Your task to perform on an android device: turn off improve location accuracy Image 0: 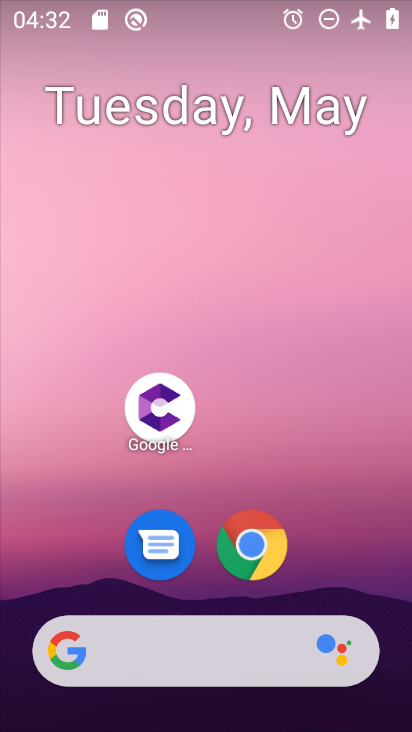
Step 0: drag from (376, 575) to (359, 227)
Your task to perform on an android device: turn off improve location accuracy Image 1: 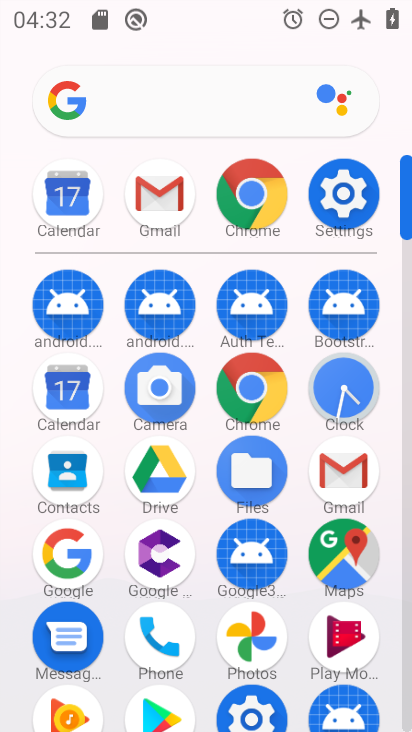
Step 1: click (345, 217)
Your task to perform on an android device: turn off improve location accuracy Image 2: 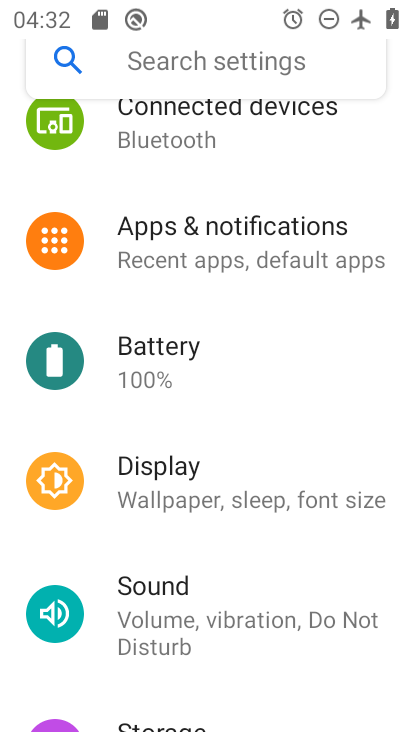
Step 2: drag from (377, 568) to (367, 417)
Your task to perform on an android device: turn off improve location accuracy Image 3: 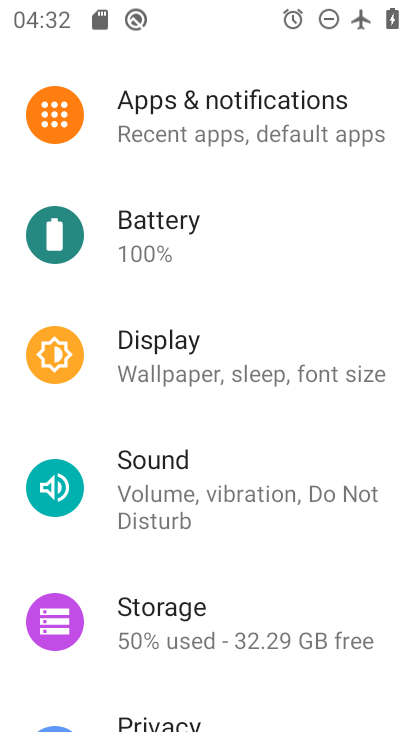
Step 3: drag from (354, 595) to (372, 430)
Your task to perform on an android device: turn off improve location accuracy Image 4: 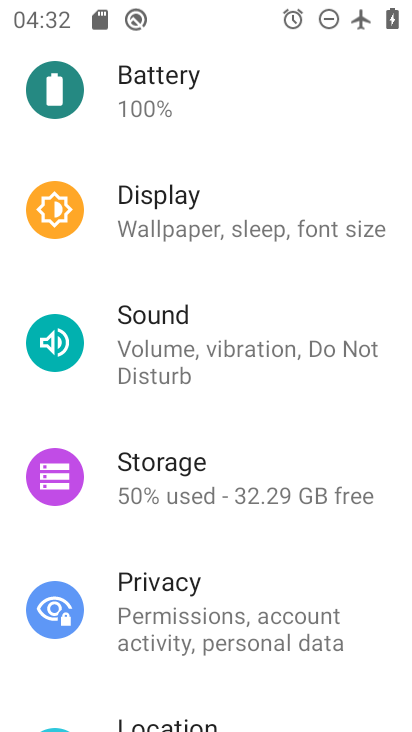
Step 4: drag from (376, 572) to (380, 442)
Your task to perform on an android device: turn off improve location accuracy Image 5: 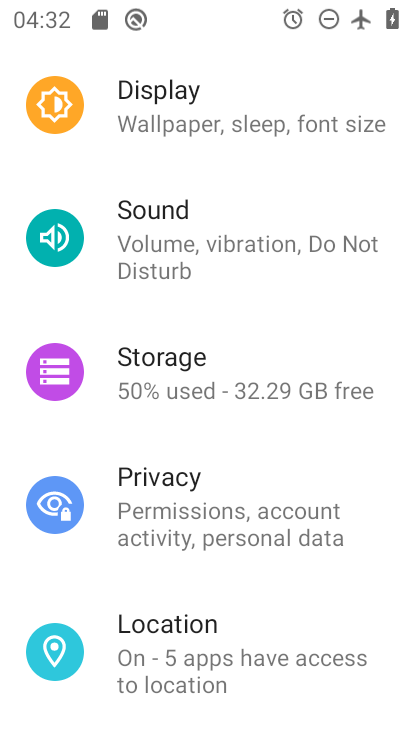
Step 5: drag from (350, 654) to (354, 532)
Your task to perform on an android device: turn off improve location accuracy Image 6: 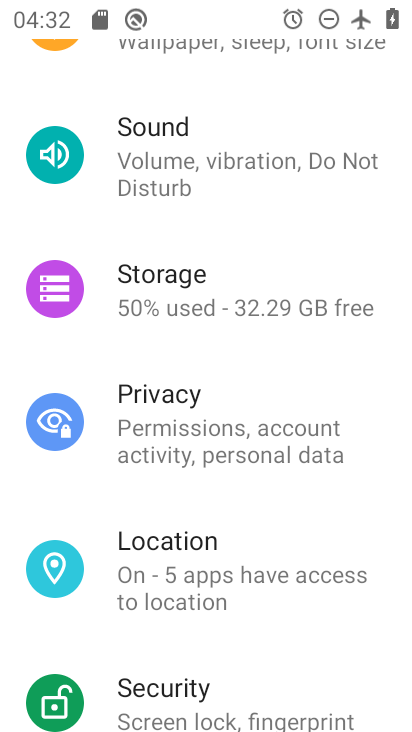
Step 6: click (319, 589)
Your task to perform on an android device: turn off improve location accuracy Image 7: 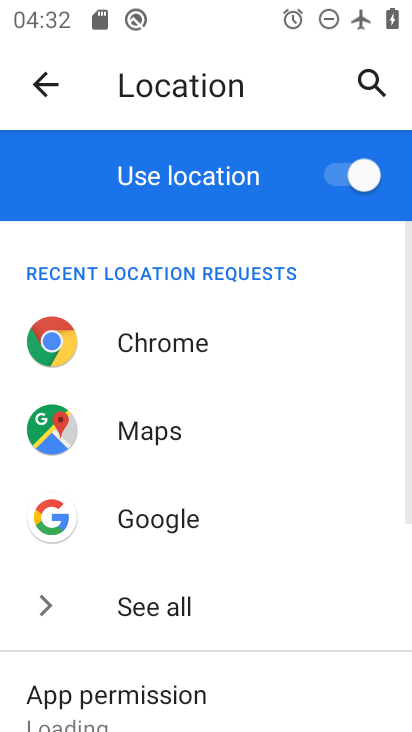
Step 7: drag from (327, 629) to (341, 486)
Your task to perform on an android device: turn off improve location accuracy Image 8: 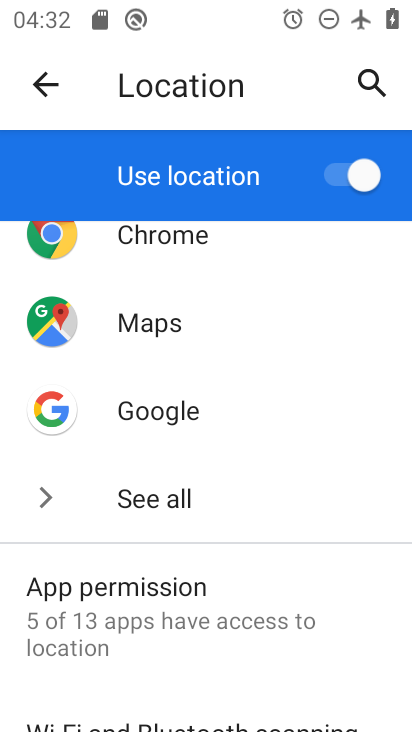
Step 8: drag from (335, 633) to (343, 577)
Your task to perform on an android device: turn off improve location accuracy Image 9: 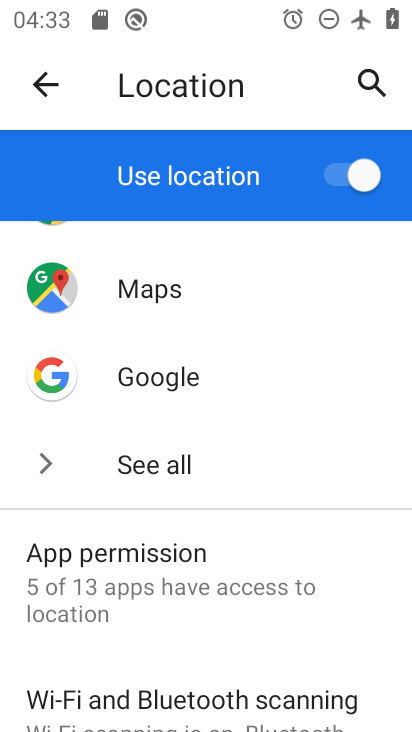
Step 9: drag from (334, 653) to (336, 535)
Your task to perform on an android device: turn off improve location accuracy Image 10: 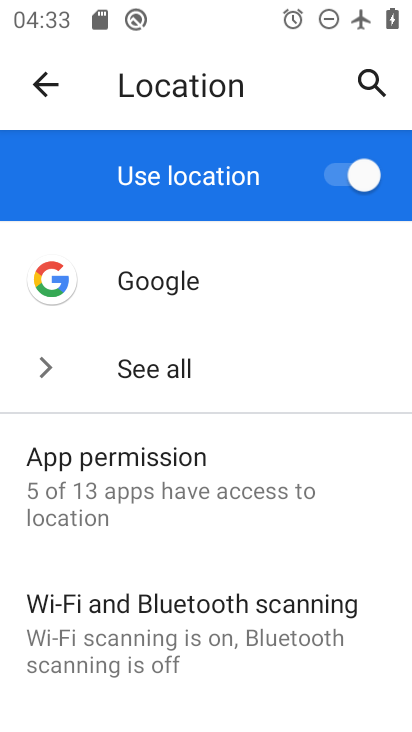
Step 10: drag from (330, 676) to (350, 540)
Your task to perform on an android device: turn off improve location accuracy Image 11: 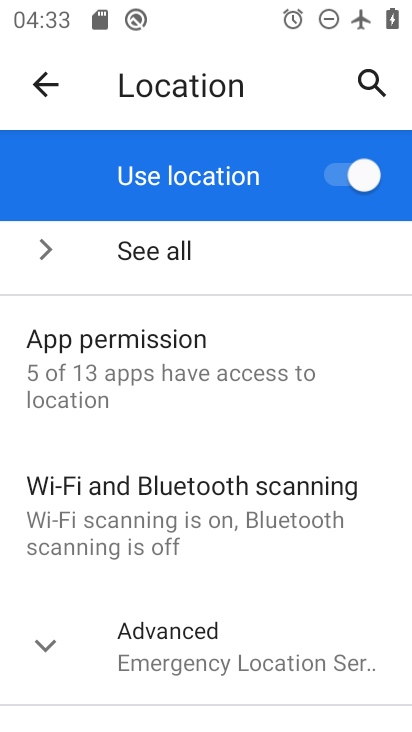
Step 11: click (306, 660)
Your task to perform on an android device: turn off improve location accuracy Image 12: 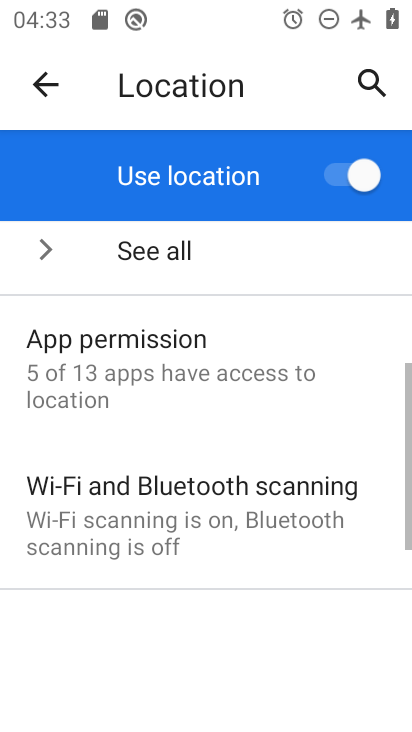
Step 12: drag from (304, 620) to (307, 548)
Your task to perform on an android device: turn off improve location accuracy Image 13: 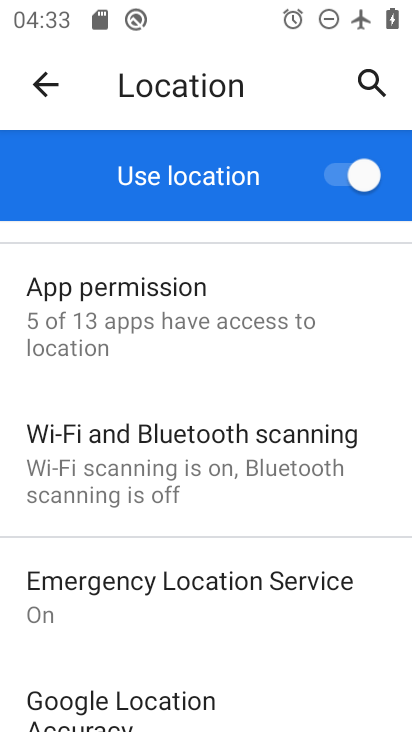
Step 13: drag from (370, 652) to (374, 552)
Your task to perform on an android device: turn off improve location accuracy Image 14: 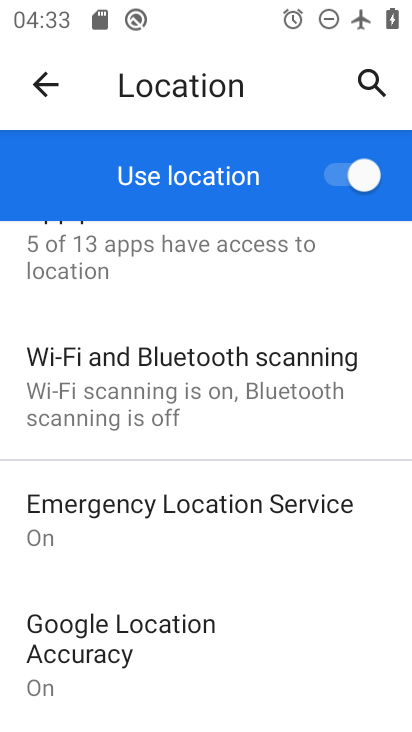
Step 14: drag from (343, 678) to (351, 563)
Your task to perform on an android device: turn off improve location accuracy Image 15: 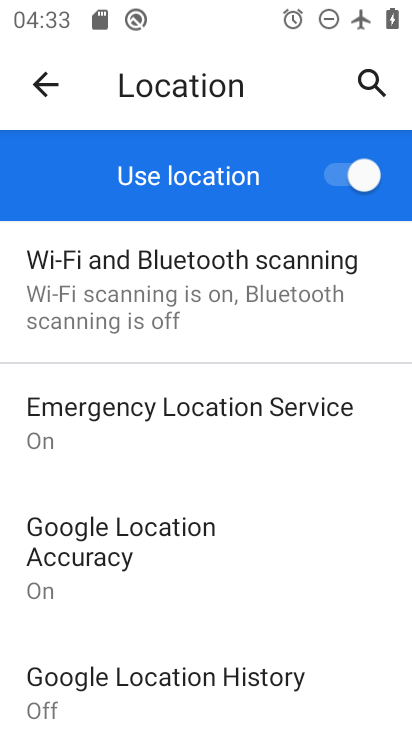
Step 15: drag from (352, 650) to (355, 544)
Your task to perform on an android device: turn off improve location accuracy Image 16: 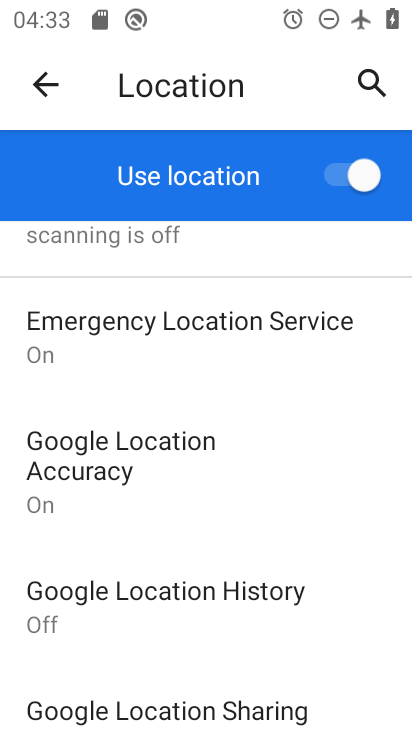
Step 16: click (137, 473)
Your task to perform on an android device: turn off improve location accuracy Image 17: 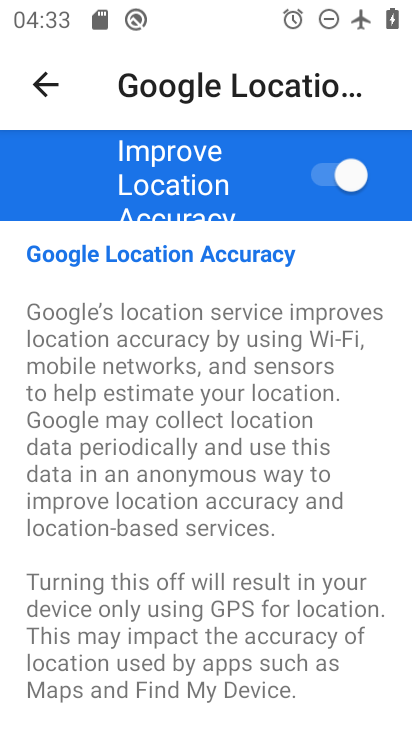
Step 17: click (355, 183)
Your task to perform on an android device: turn off improve location accuracy Image 18: 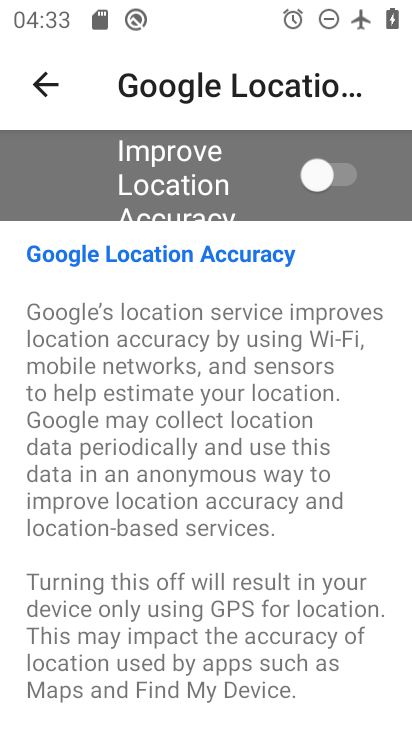
Step 18: task complete